Your task to perform on an android device: Open settings Image 0: 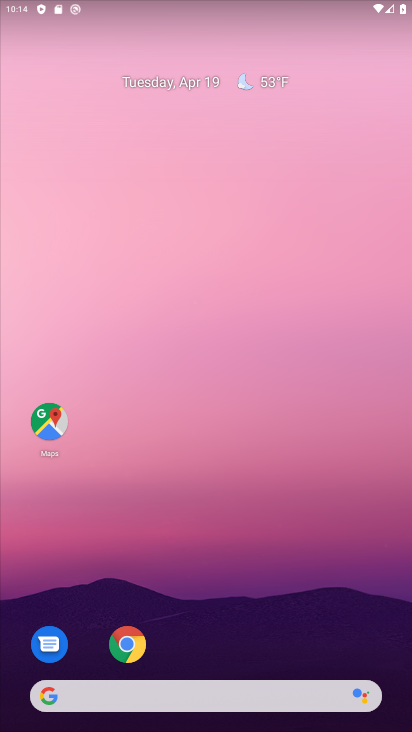
Step 0: drag from (183, 639) to (195, 132)
Your task to perform on an android device: Open settings Image 1: 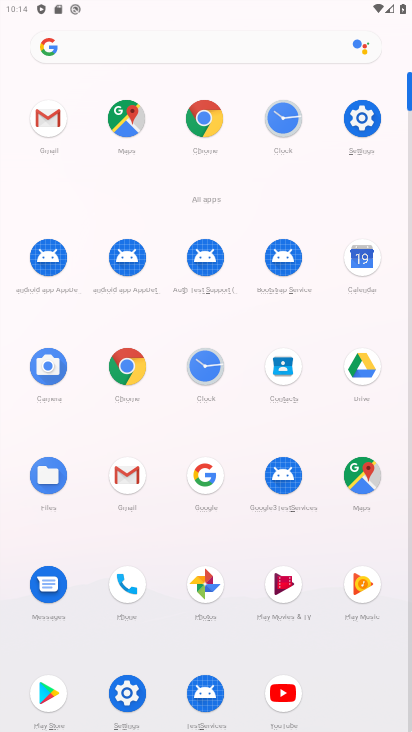
Step 1: click (367, 122)
Your task to perform on an android device: Open settings Image 2: 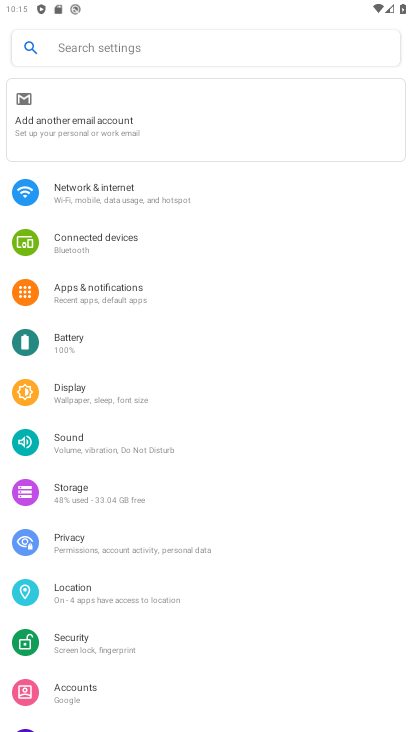
Step 2: task complete